Your task to perform on an android device: Open privacy settings Image 0: 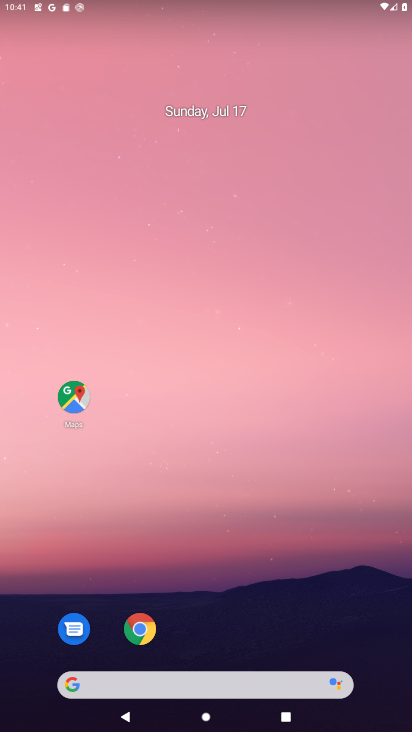
Step 0: drag from (246, 670) to (275, 282)
Your task to perform on an android device: Open privacy settings Image 1: 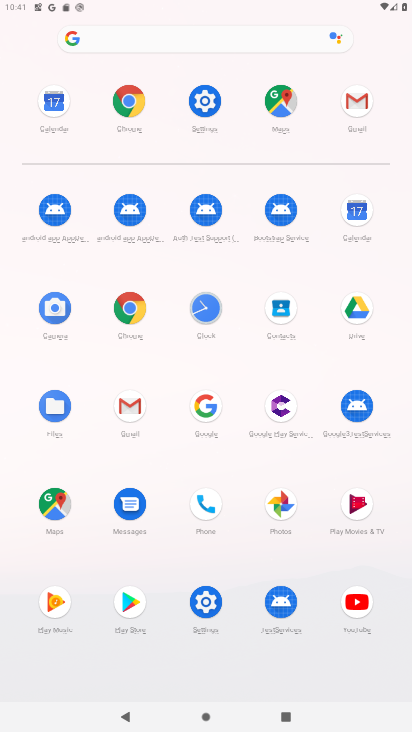
Step 1: click (205, 101)
Your task to perform on an android device: Open privacy settings Image 2: 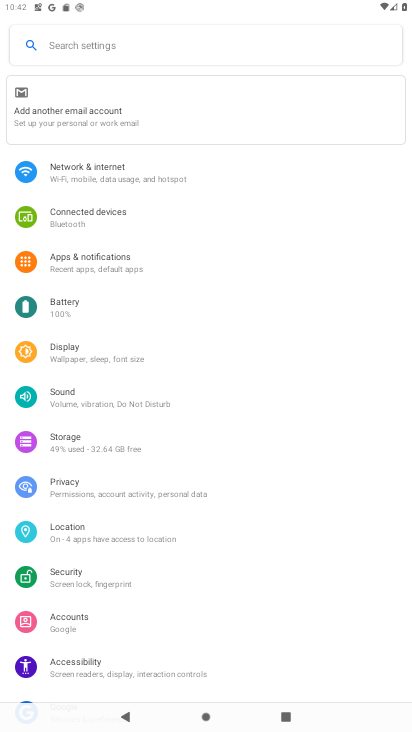
Step 2: click (92, 491)
Your task to perform on an android device: Open privacy settings Image 3: 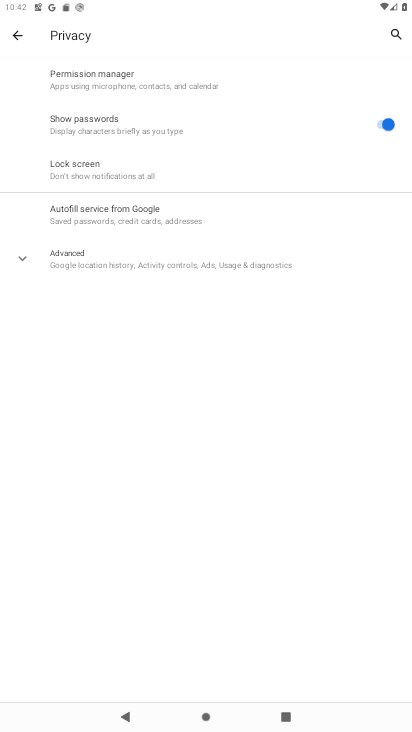
Step 3: task complete